Your task to perform on an android device: Open Youtube and go to the subscriptions tab Image 0: 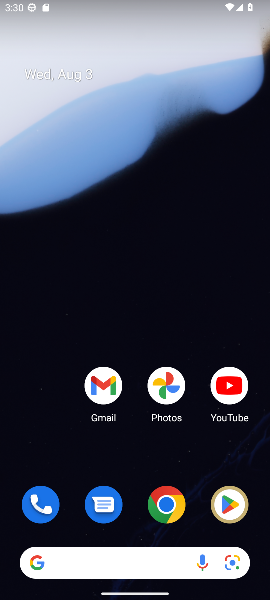
Step 0: click (227, 386)
Your task to perform on an android device: Open Youtube and go to the subscriptions tab Image 1: 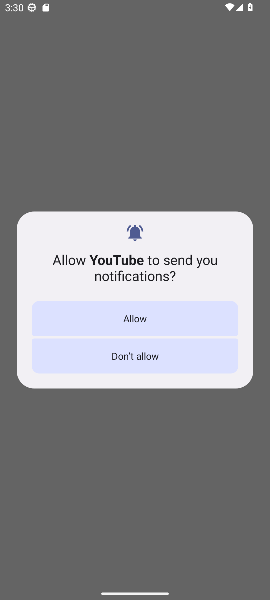
Step 1: click (168, 313)
Your task to perform on an android device: Open Youtube and go to the subscriptions tab Image 2: 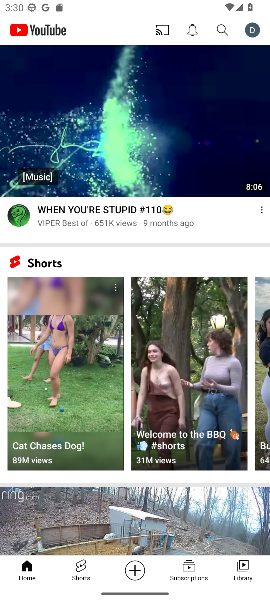
Step 2: click (180, 574)
Your task to perform on an android device: Open Youtube and go to the subscriptions tab Image 3: 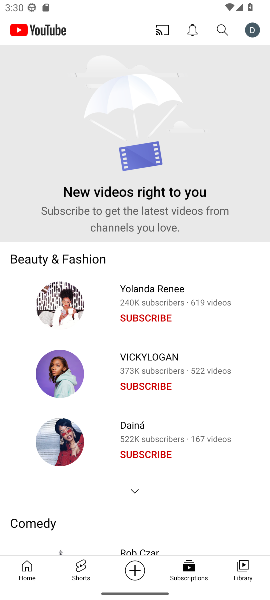
Step 3: task complete